Your task to perform on an android device: turn off notifications in google photos Image 0: 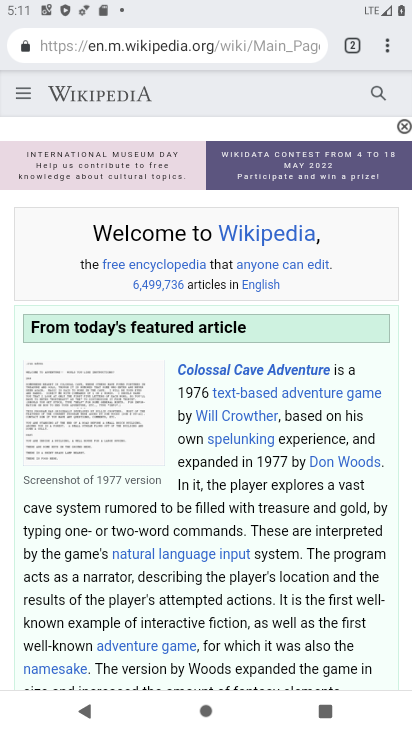
Step 0: press back button
Your task to perform on an android device: turn off notifications in google photos Image 1: 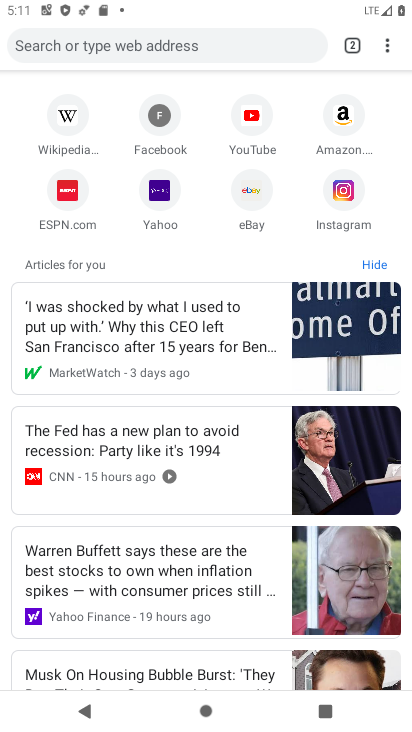
Step 1: press back button
Your task to perform on an android device: turn off notifications in google photos Image 2: 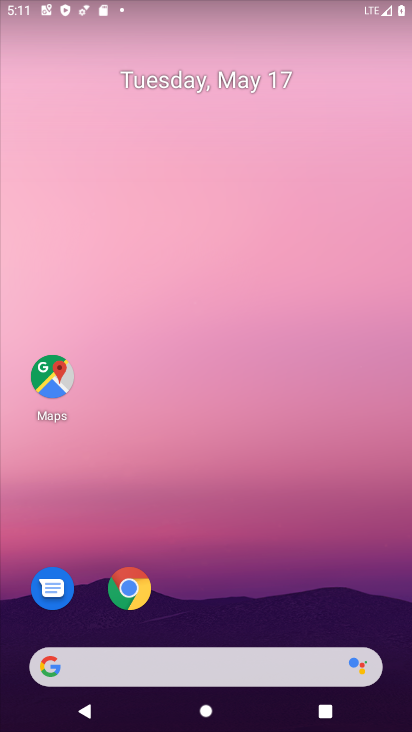
Step 2: drag from (220, 549) to (206, 184)
Your task to perform on an android device: turn off notifications in google photos Image 3: 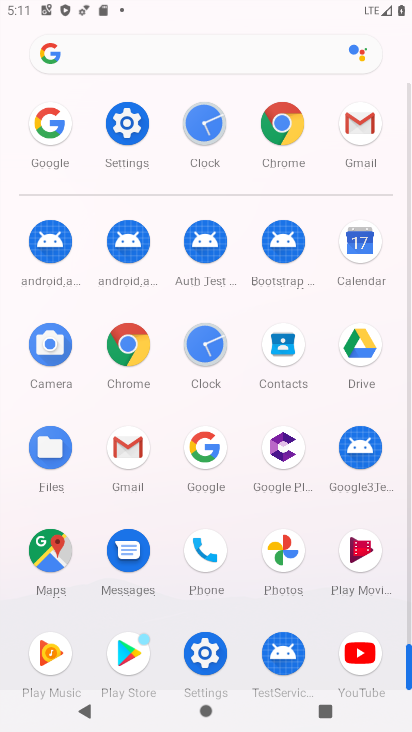
Step 3: click (283, 551)
Your task to perform on an android device: turn off notifications in google photos Image 4: 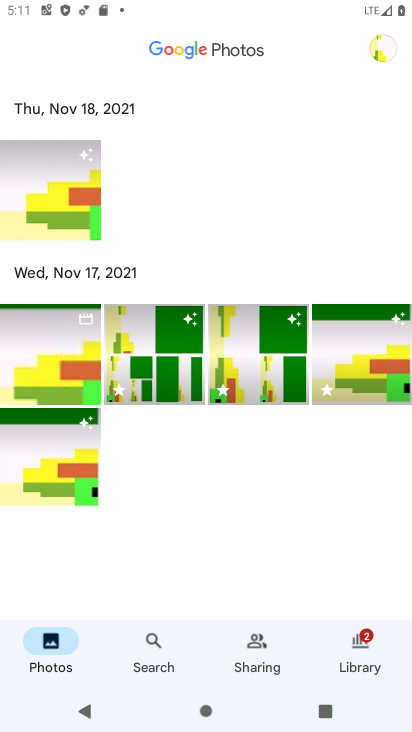
Step 4: click (383, 53)
Your task to perform on an android device: turn off notifications in google photos Image 5: 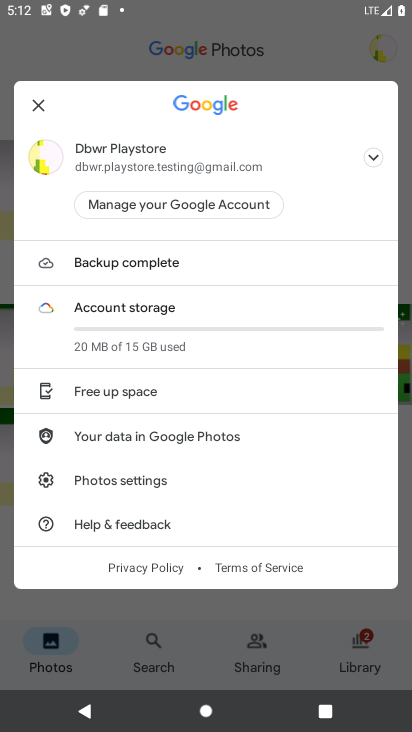
Step 5: click (135, 481)
Your task to perform on an android device: turn off notifications in google photos Image 6: 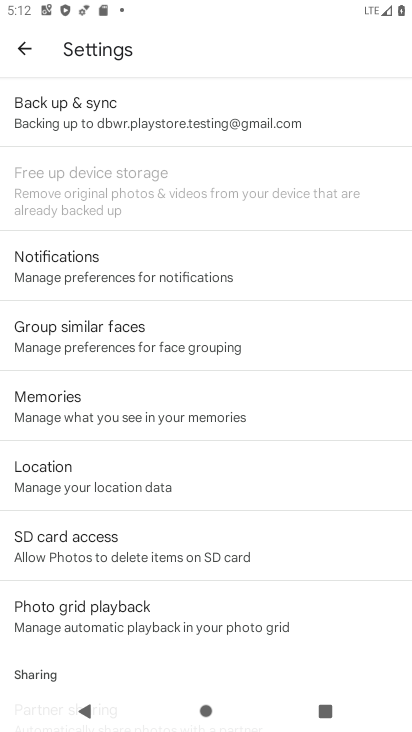
Step 6: click (143, 270)
Your task to perform on an android device: turn off notifications in google photos Image 7: 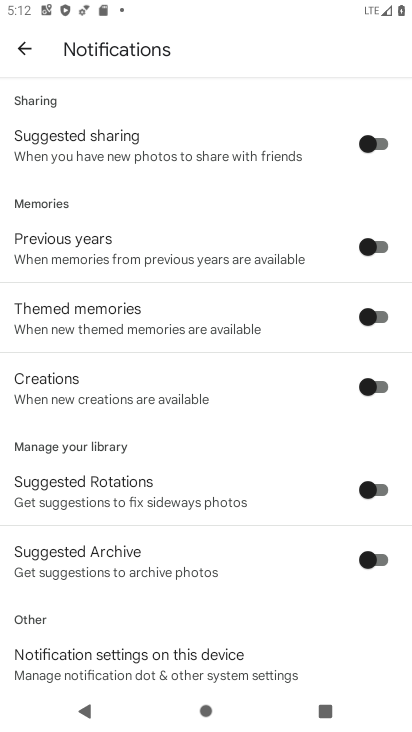
Step 7: drag from (100, 600) to (135, 491)
Your task to perform on an android device: turn off notifications in google photos Image 8: 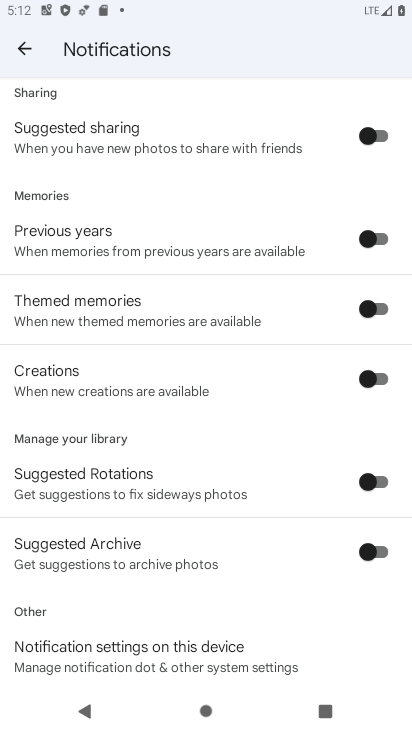
Step 8: click (113, 652)
Your task to perform on an android device: turn off notifications in google photos Image 9: 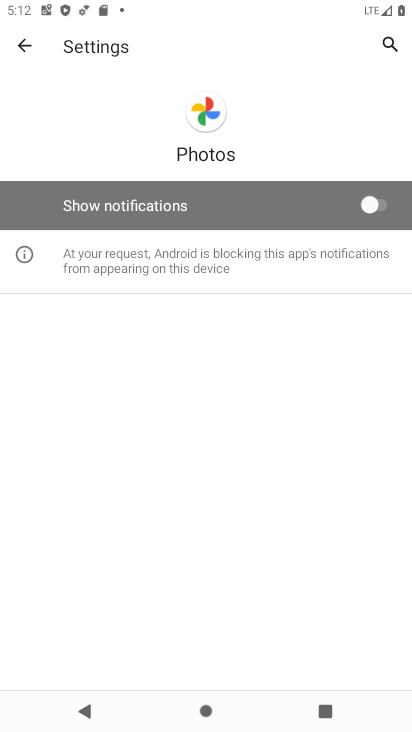
Step 9: task complete